Your task to perform on an android device: create a new album in the google photos Image 0: 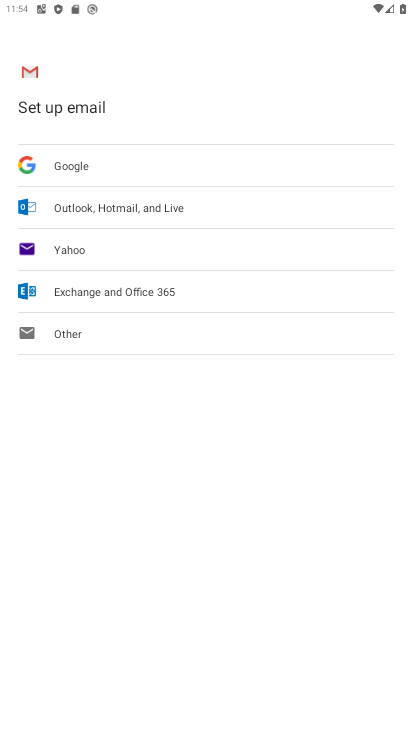
Step 0: press home button
Your task to perform on an android device: create a new album in the google photos Image 1: 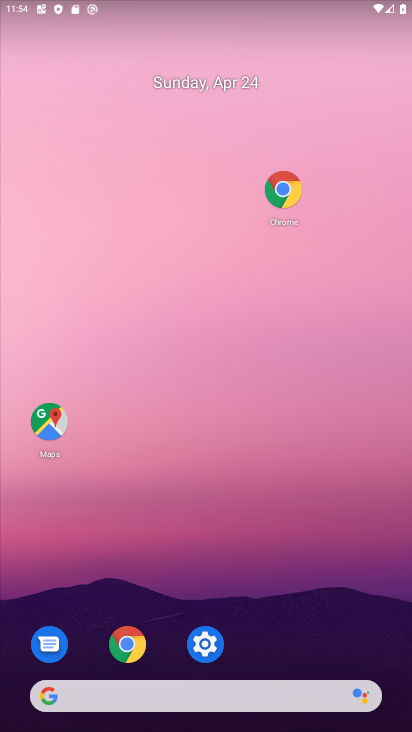
Step 1: drag from (291, 613) to (217, 129)
Your task to perform on an android device: create a new album in the google photos Image 2: 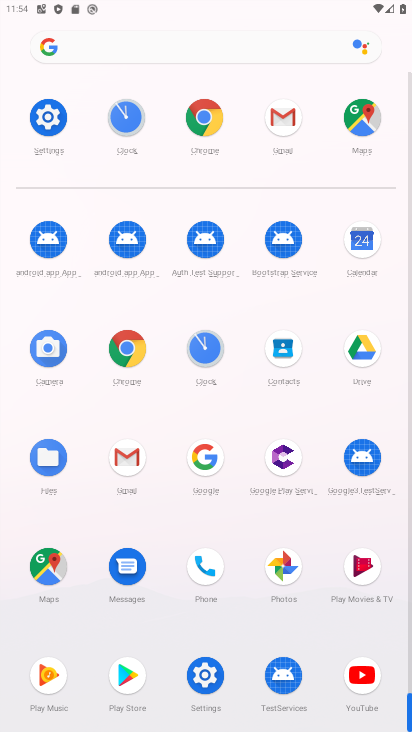
Step 2: click (288, 553)
Your task to perform on an android device: create a new album in the google photos Image 3: 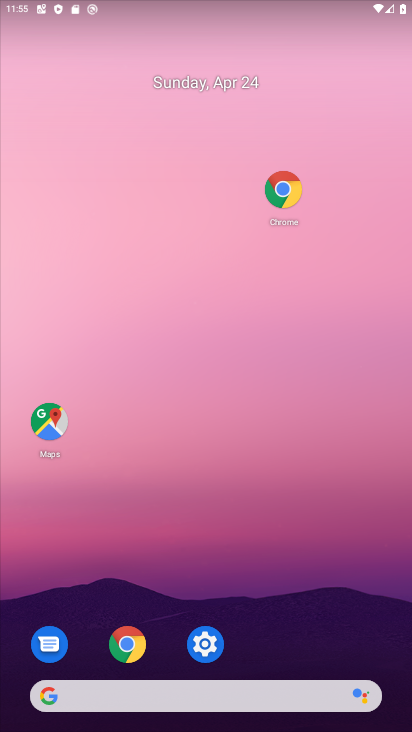
Step 3: drag from (329, 634) to (187, 173)
Your task to perform on an android device: create a new album in the google photos Image 4: 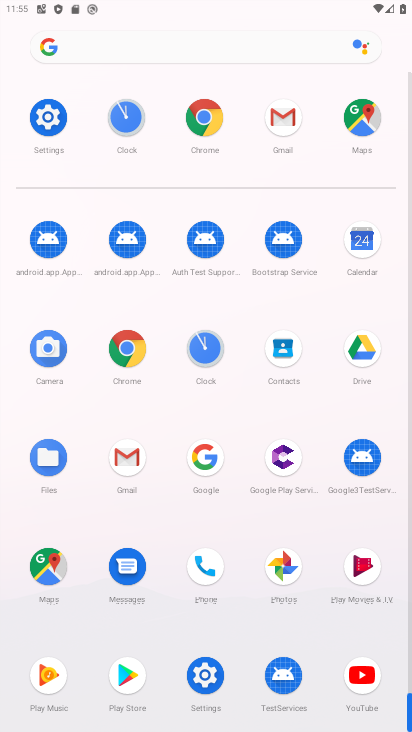
Step 4: drag from (287, 583) to (304, 551)
Your task to perform on an android device: create a new album in the google photos Image 5: 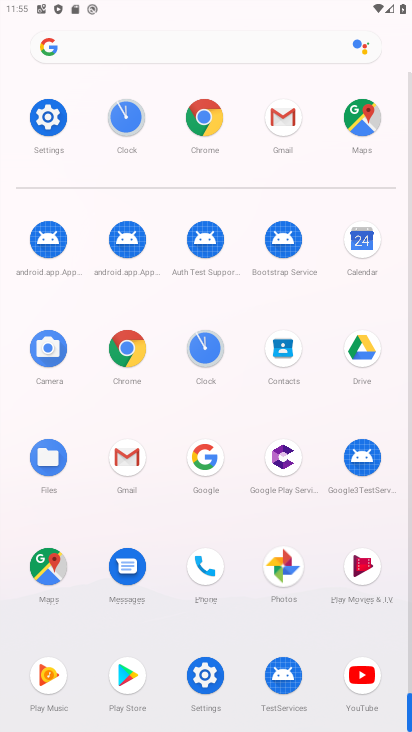
Step 5: click (304, 549)
Your task to perform on an android device: create a new album in the google photos Image 6: 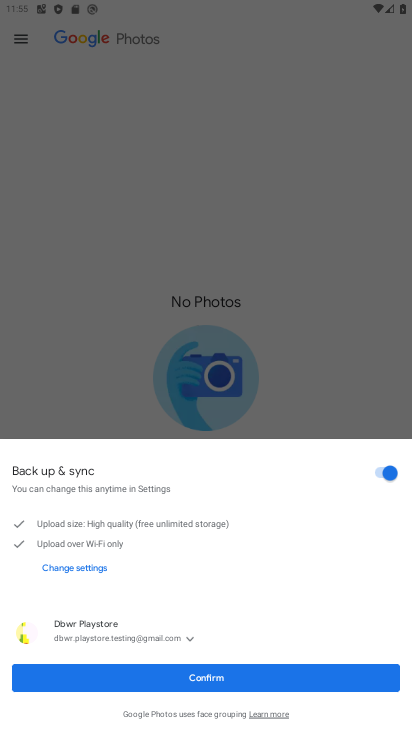
Step 6: click (213, 668)
Your task to perform on an android device: create a new album in the google photos Image 7: 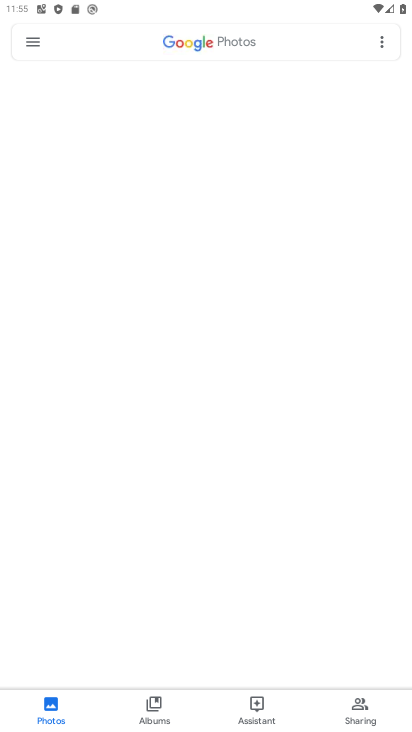
Step 7: click (264, 196)
Your task to perform on an android device: create a new album in the google photos Image 8: 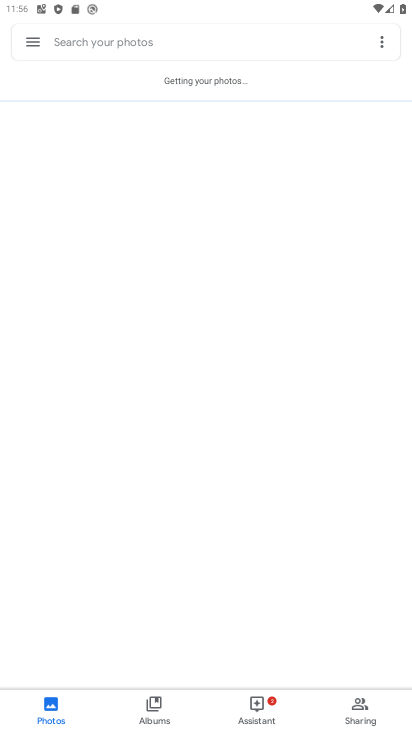
Step 8: click (33, 34)
Your task to perform on an android device: create a new album in the google photos Image 9: 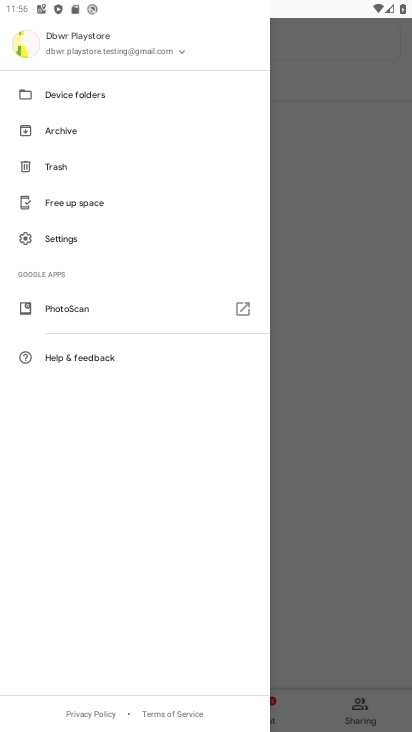
Step 9: press home button
Your task to perform on an android device: create a new album in the google photos Image 10: 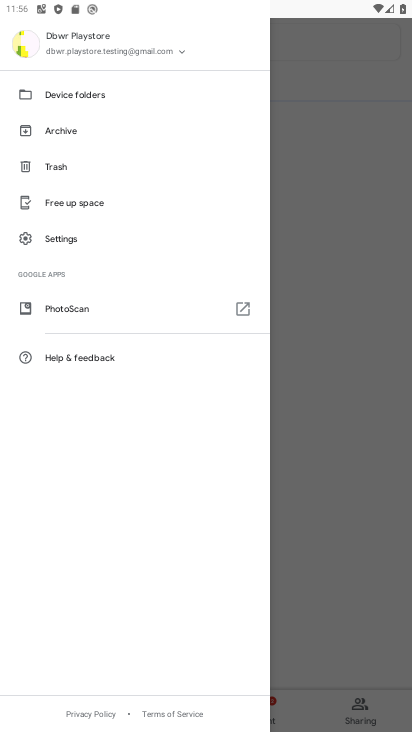
Step 10: press home button
Your task to perform on an android device: create a new album in the google photos Image 11: 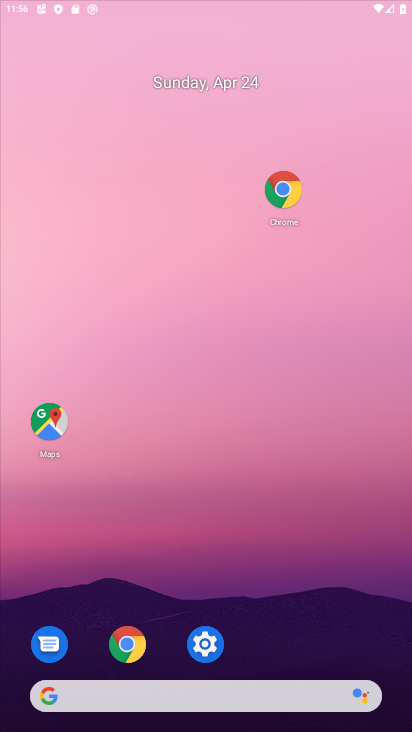
Step 11: press home button
Your task to perform on an android device: create a new album in the google photos Image 12: 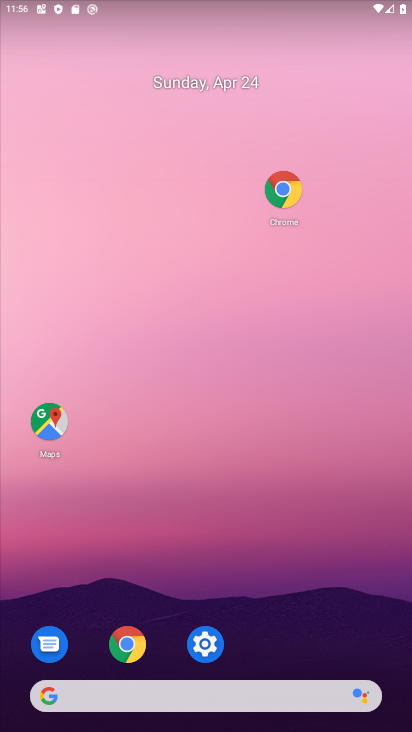
Step 12: press home button
Your task to perform on an android device: create a new album in the google photos Image 13: 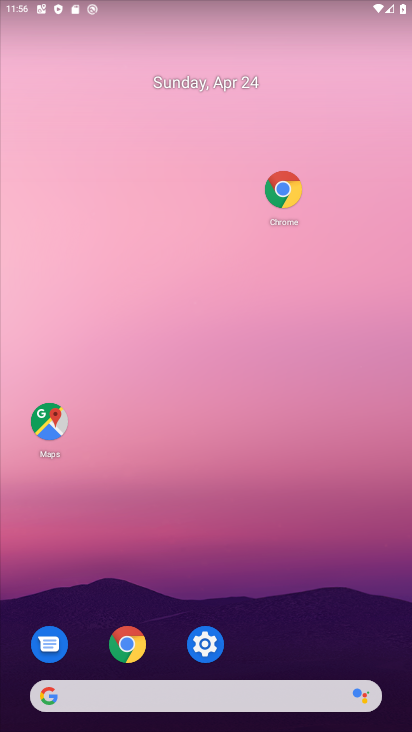
Step 13: drag from (258, 635) to (93, 17)
Your task to perform on an android device: create a new album in the google photos Image 14: 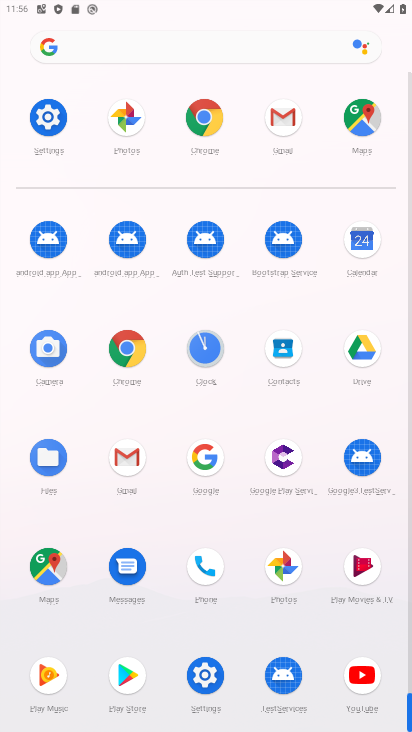
Step 14: click (287, 557)
Your task to perform on an android device: create a new album in the google photos Image 15: 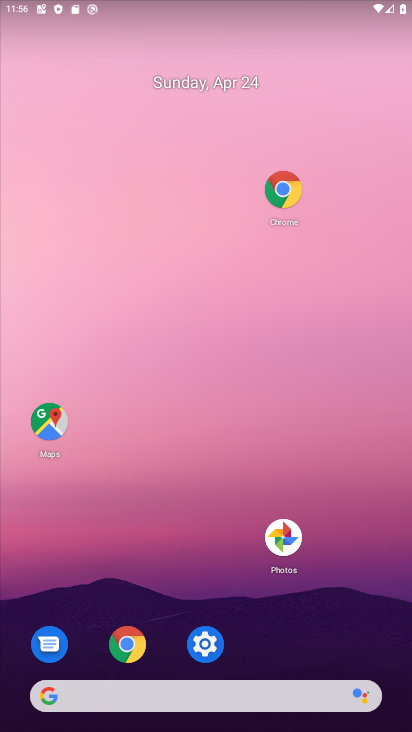
Step 15: drag from (273, 717) to (227, 168)
Your task to perform on an android device: create a new album in the google photos Image 16: 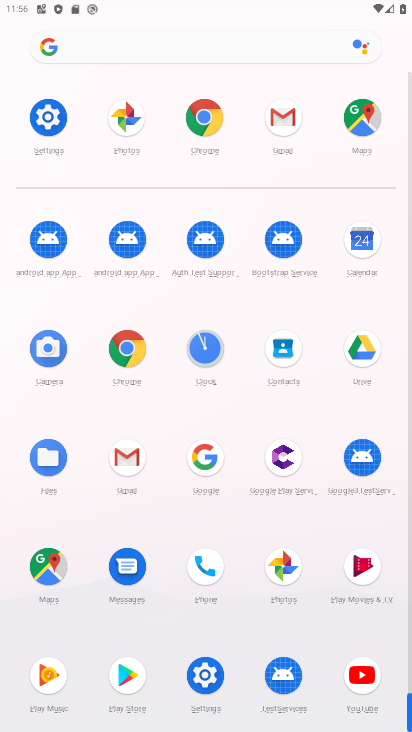
Step 16: click (290, 571)
Your task to perform on an android device: create a new album in the google photos Image 17: 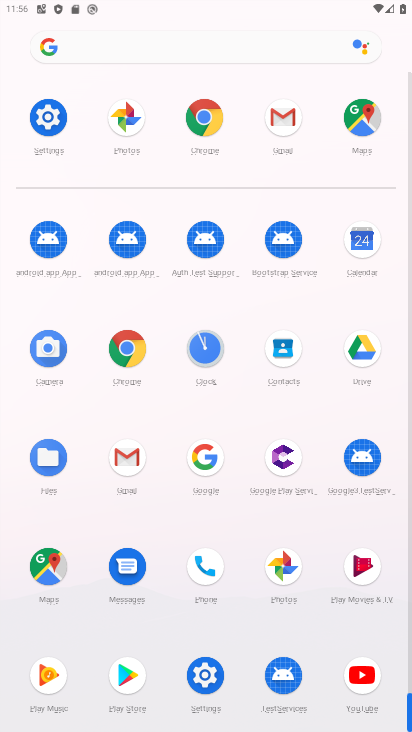
Step 17: click (287, 565)
Your task to perform on an android device: create a new album in the google photos Image 18: 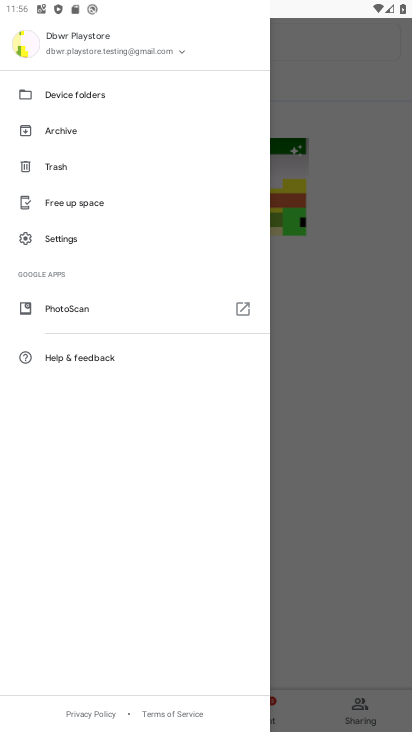
Step 18: click (53, 232)
Your task to perform on an android device: create a new album in the google photos Image 19: 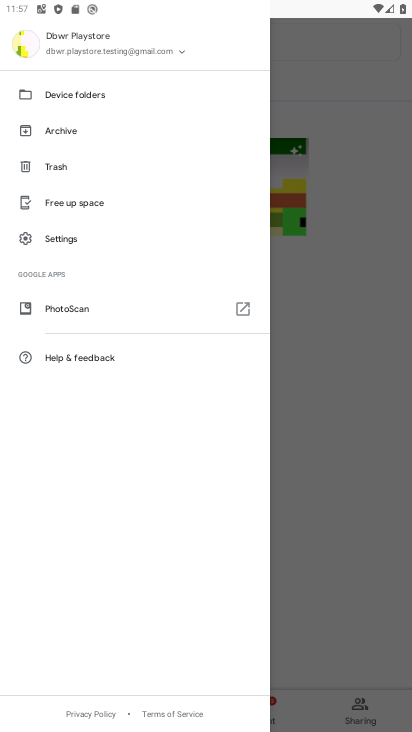
Step 19: click (70, 228)
Your task to perform on an android device: create a new album in the google photos Image 20: 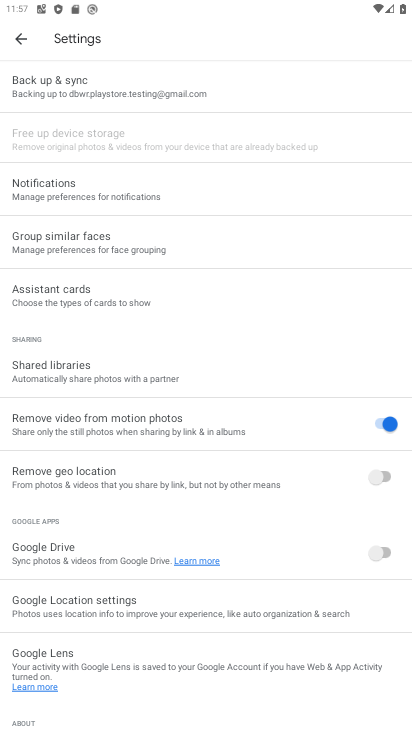
Step 20: click (18, 30)
Your task to perform on an android device: create a new album in the google photos Image 21: 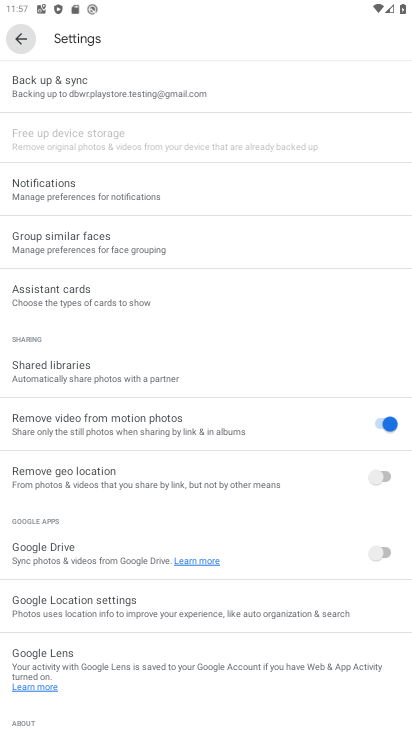
Step 21: click (20, 29)
Your task to perform on an android device: create a new album in the google photos Image 22: 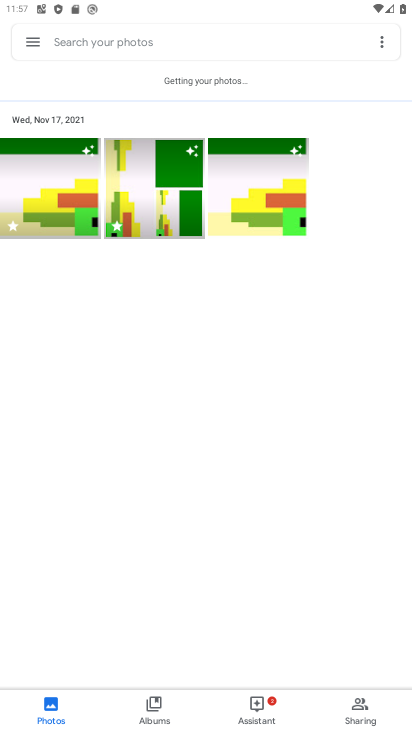
Step 22: click (144, 701)
Your task to perform on an android device: create a new album in the google photos Image 23: 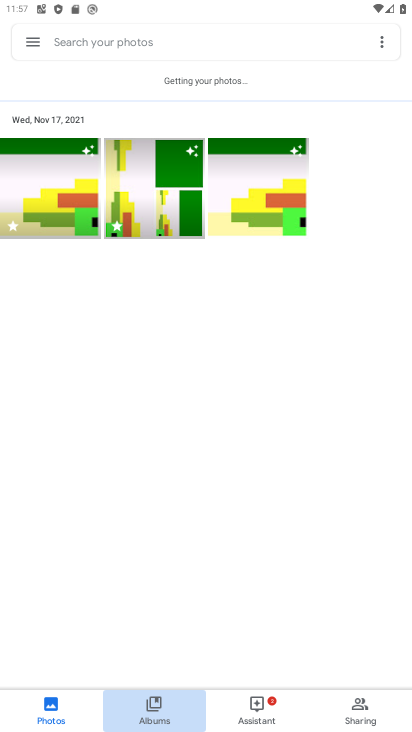
Step 23: click (144, 701)
Your task to perform on an android device: create a new album in the google photos Image 24: 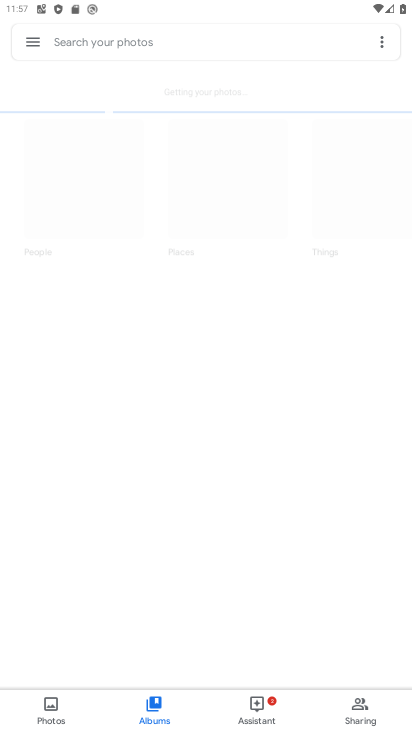
Step 24: click (144, 697)
Your task to perform on an android device: create a new album in the google photos Image 25: 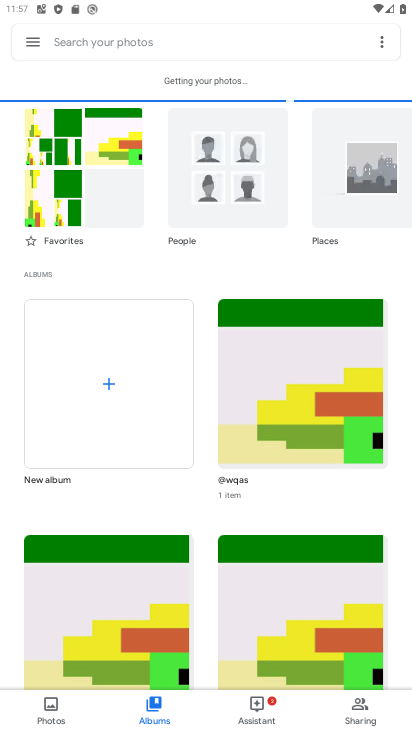
Step 25: click (100, 379)
Your task to perform on an android device: create a new album in the google photos Image 26: 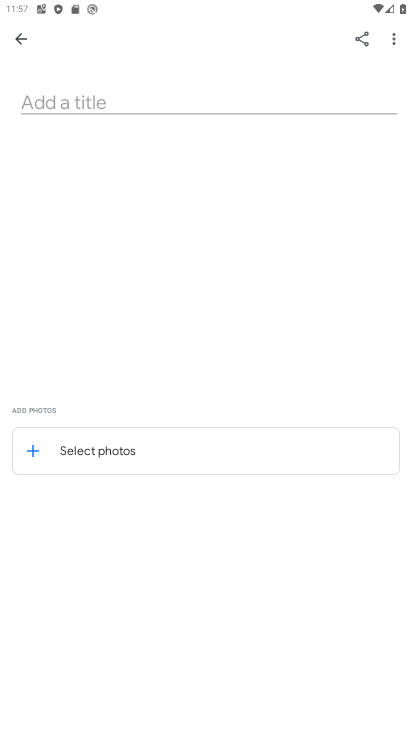
Step 26: click (36, 107)
Your task to perform on an android device: create a new album in the google photos Image 27: 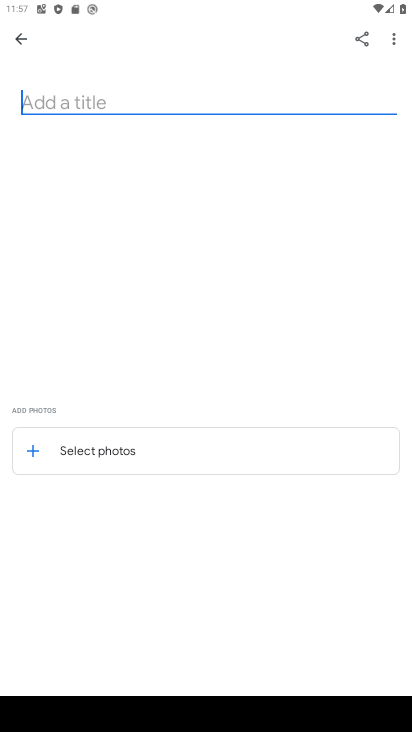
Step 27: type "puja"
Your task to perform on an android device: create a new album in the google photos Image 28: 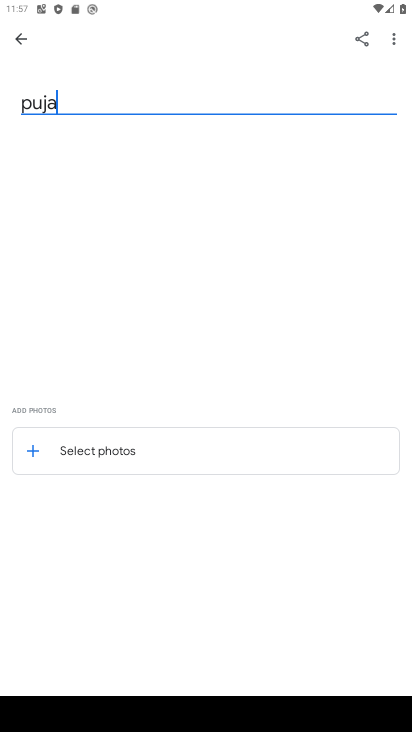
Step 28: click (85, 450)
Your task to perform on an android device: create a new album in the google photos Image 29: 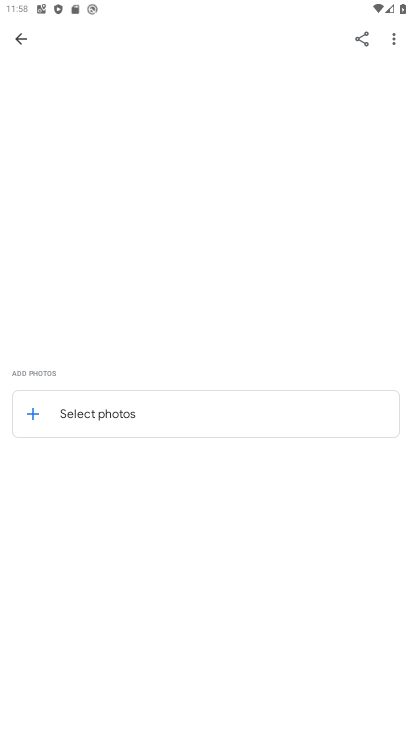
Step 29: click (88, 412)
Your task to perform on an android device: create a new album in the google photos Image 30: 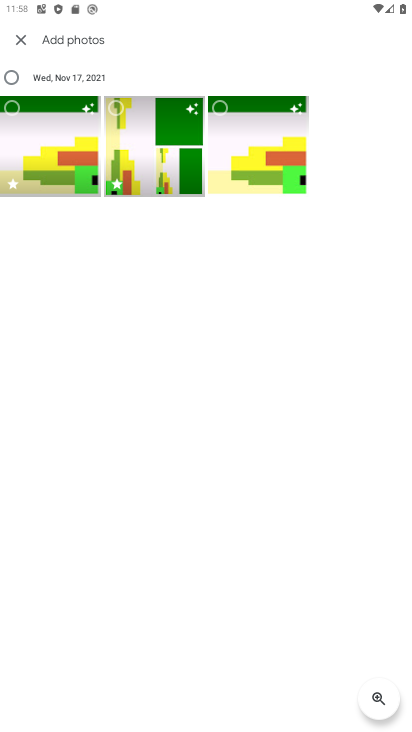
Step 30: click (8, 110)
Your task to perform on an android device: create a new album in the google photos Image 31: 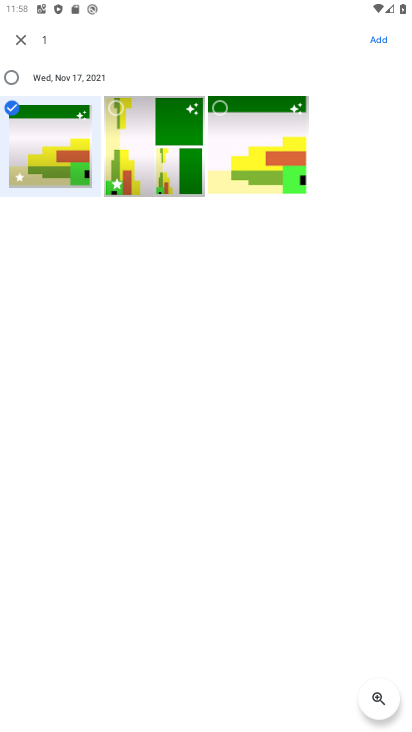
Step 31: click (119, 112)
Your task to perform on an android device: create a new album in the google photos Image 32: 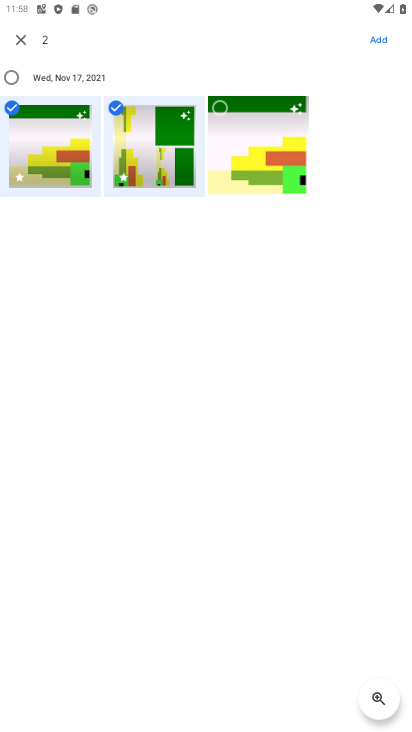
Step 32: click (380, 34)
Your task to perform on an android device: create a new album in the google photos Image 33: 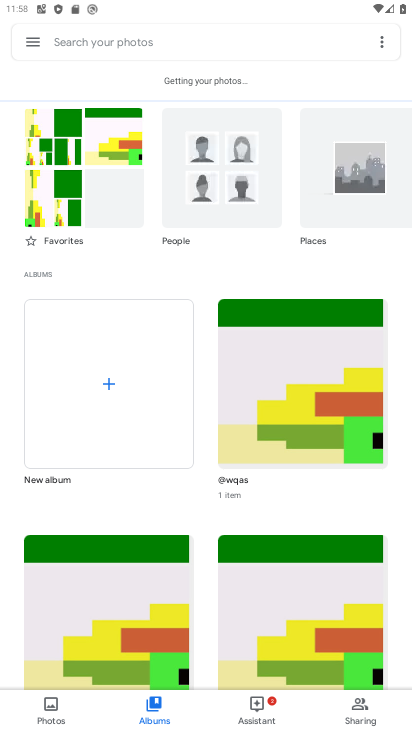
Step 33: task complete